Your task to perform on an android device: check data usage Image 0: 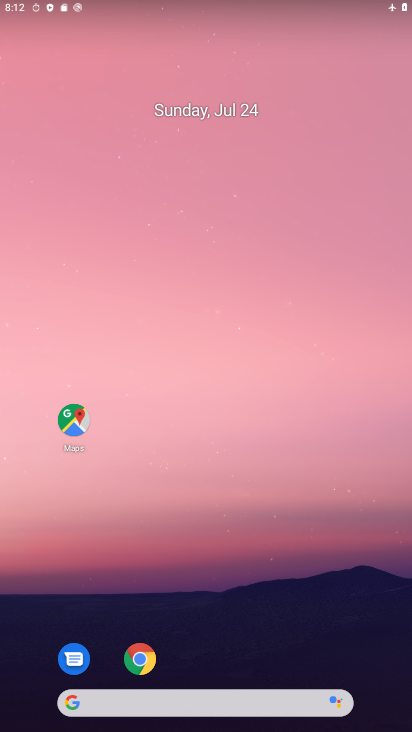
Step 0: drag from (274, 682) to (153, 186)
Your task to perform on an android device: check data usage Image 1: 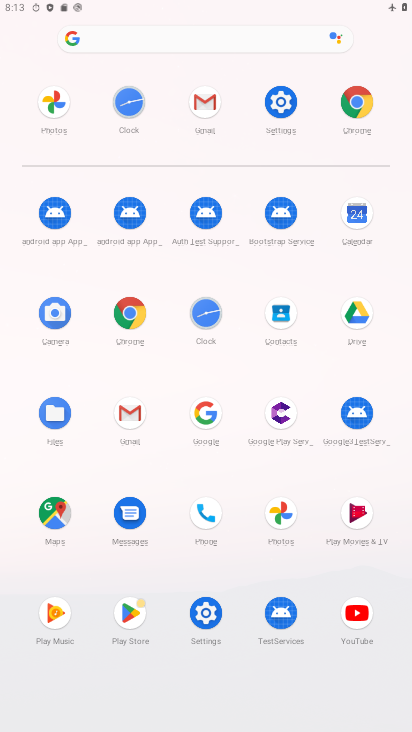
Step 1: click (199, 615)
Your task to perform on an android device: check data usage Image 2: 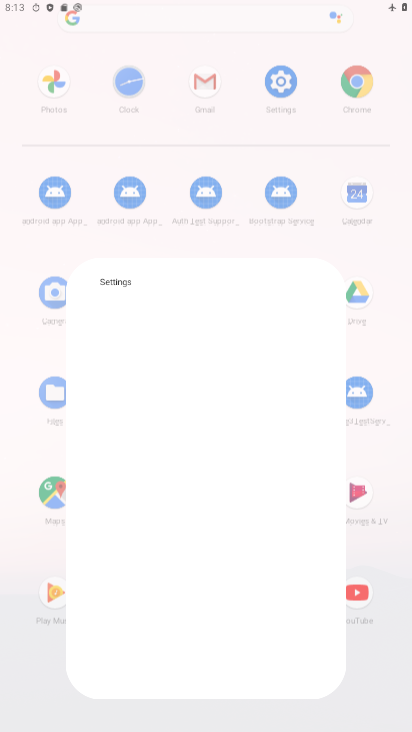
Step 2: click (201, 612)
Your task to perform on an android device: check data usage Image 3: 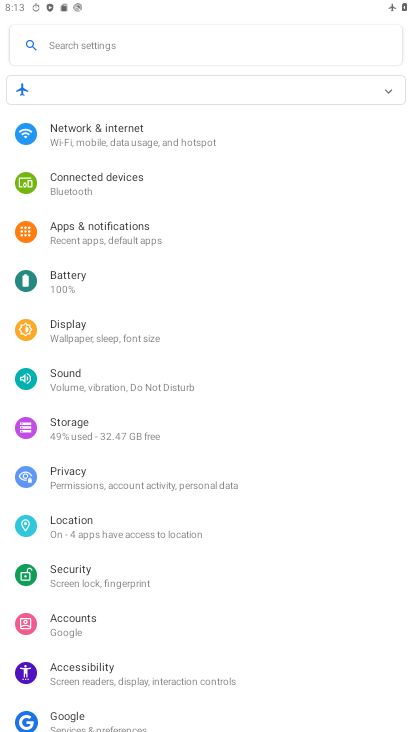
Step 3: click (102, 139)
Your task to perform on an android device: check data usage Image 4: 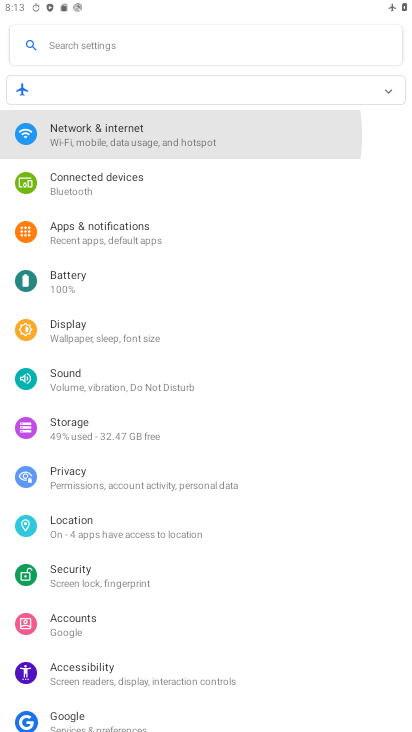
Step 4: click (101, 138)
Your task to perform on an android device: check data usage Image 5: 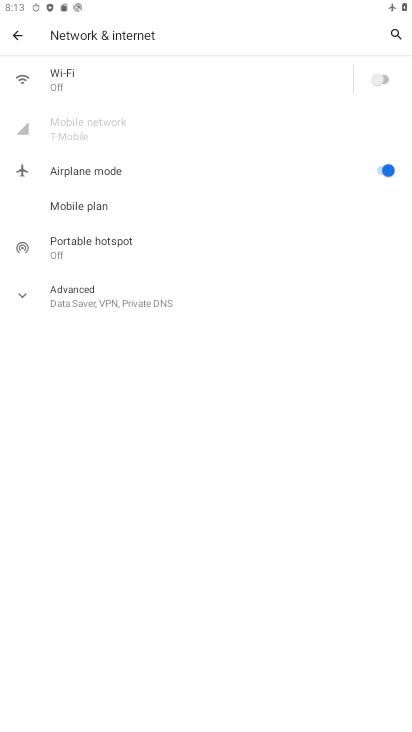
Step 5: click (64, 129)
Your task to perform on an android device: check data usage Image 6: 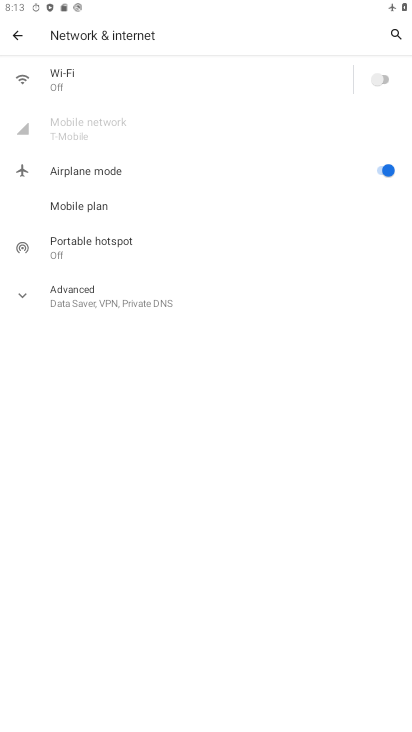
Step 6: click (60, 126)
Your task to perform on an android device: check data usage Image 7: 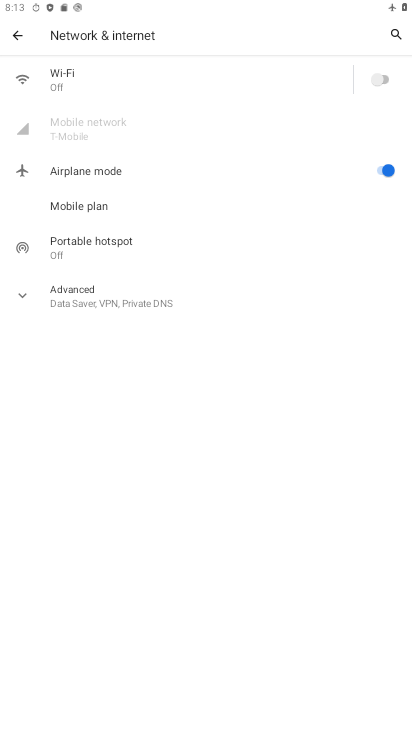
Step 7: click (383, 170)
Your task to perform on an android device: check data usage Image 8: 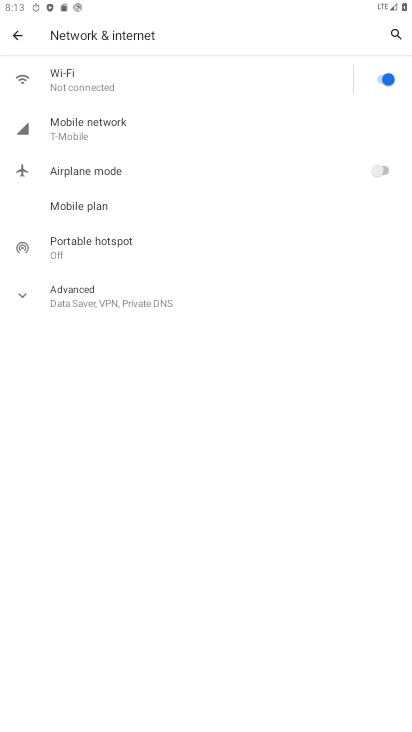
Step 8: click (103, 121)
Your task to perform on an android device: check data usage Image 9: 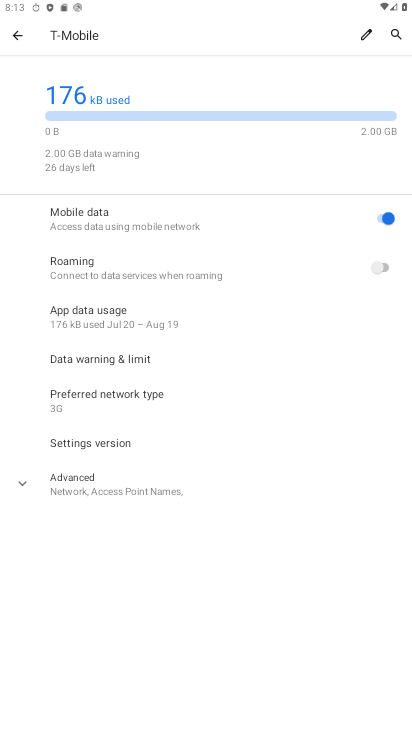
Step 9: task complete